Your task to perform on an android device: Turn off the flashlight Image 0: 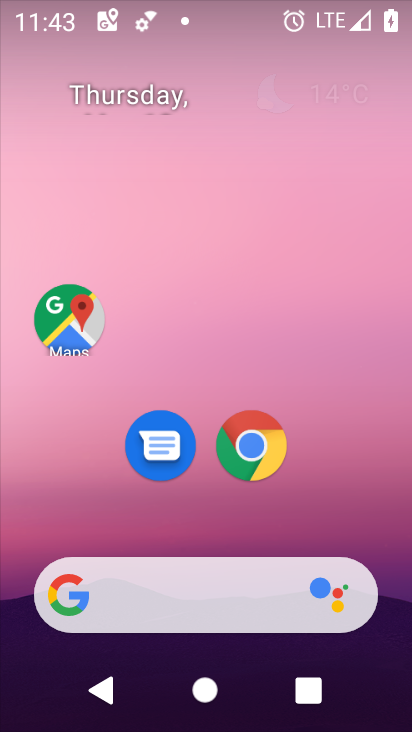
Step 0: drag from (311, 528) to (267, 214)
Your task to perform on an android device: Turn off the flashlight Image 1: 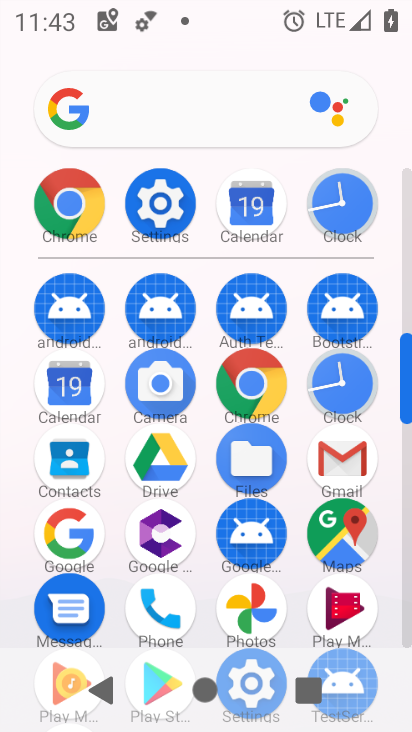
Step 1: click (170, 201)
Your task to perform on an android device: Turn off the flashlight Image 2: 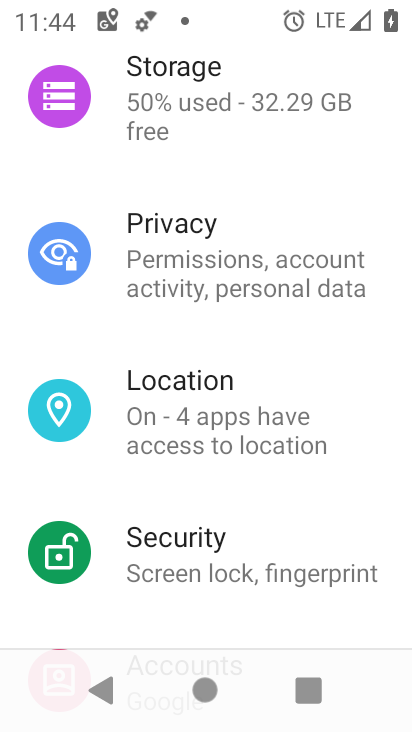
Step 2: task complete